Your task to perform on an android device: Show me recent news Image 0: 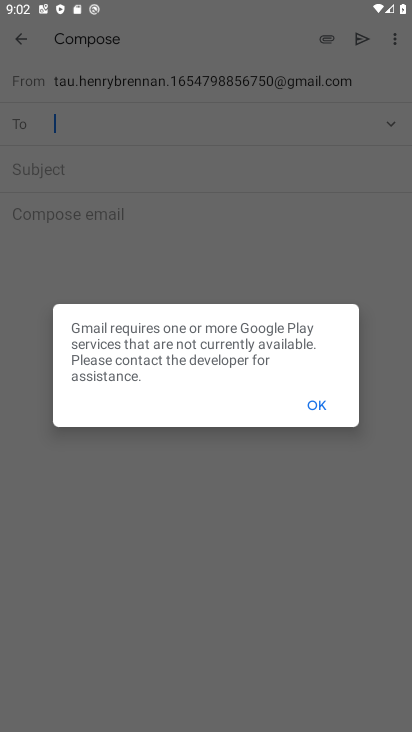
Step 0: press back button
Your task to perform on an android device: Show me recent news Image 1: 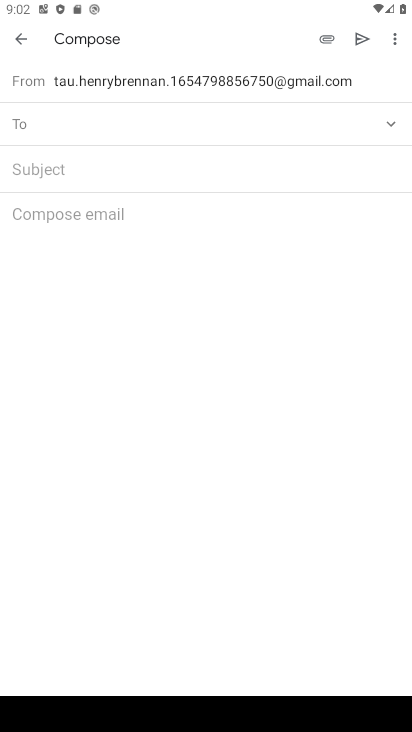
Step 1: press home button
Your task to perform on an android device: Show me recent news Image 2: 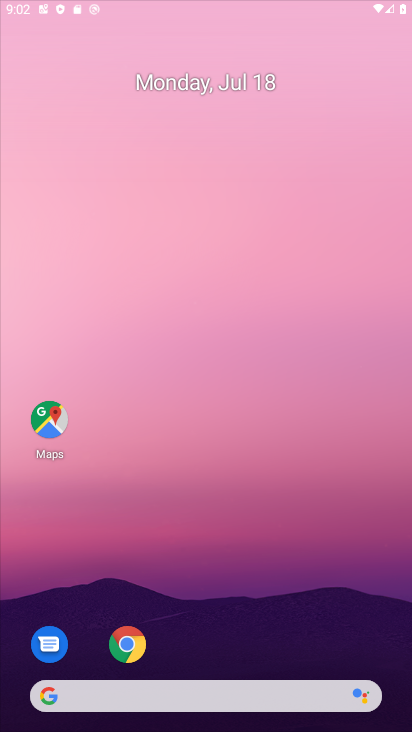
Step 2: click (104, 676)
Your task to perform on an android device: Show me recent news Image 3: 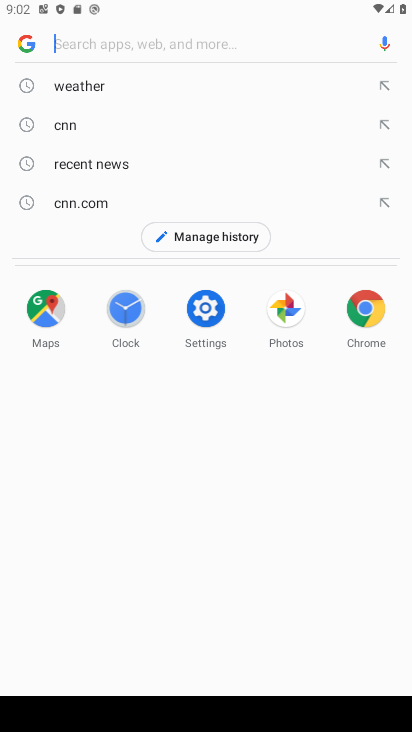
Step 3: click (95, 156)
Your task to perform on an android device: Show me recent news Image 4: 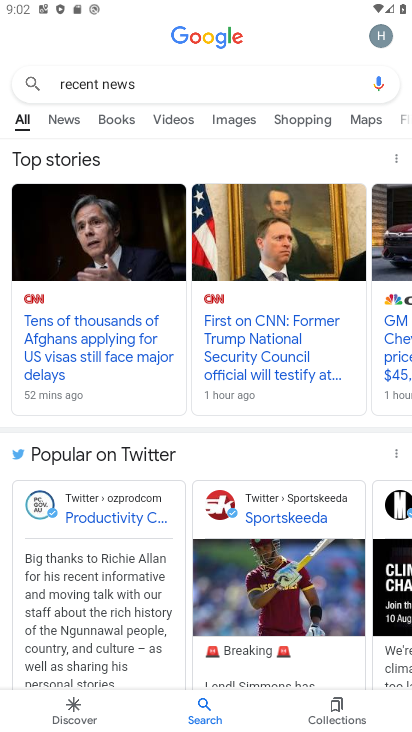
Step 4: task complete